Your task to perform on an android device: What's on my calendar today? Image 0: 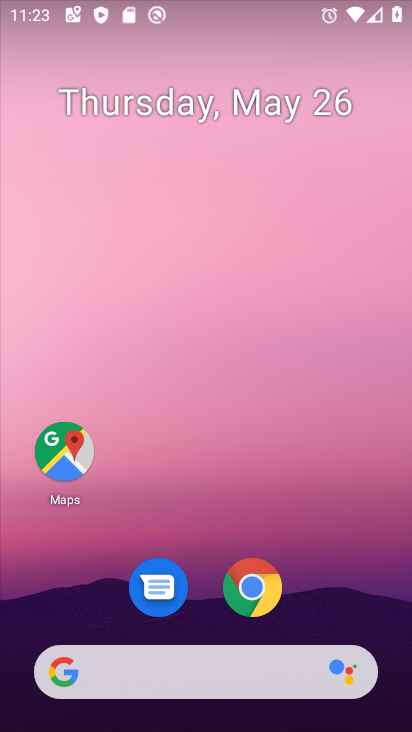
Step 0: drag from (219, 698) to (410, 33)
Your task to perform on an android device: What's on my calendar today? Image 1: 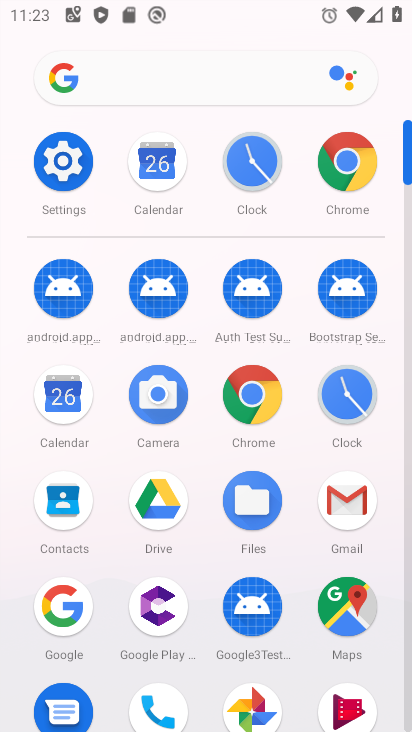
Step 1: click (55, 391)
Your task to perform on an android device: What's on my calendar today? Image 2: 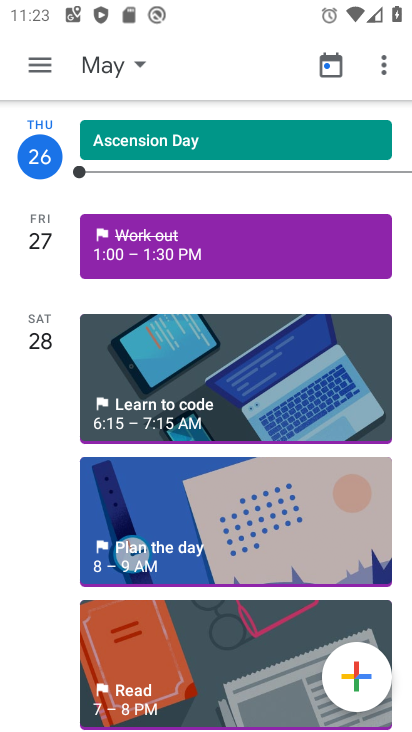
Step 2: task complete